Your task to perform on an android device: Search for "duracell triple a" on target.com, select the first entry, and add it to the cart. Image 0: 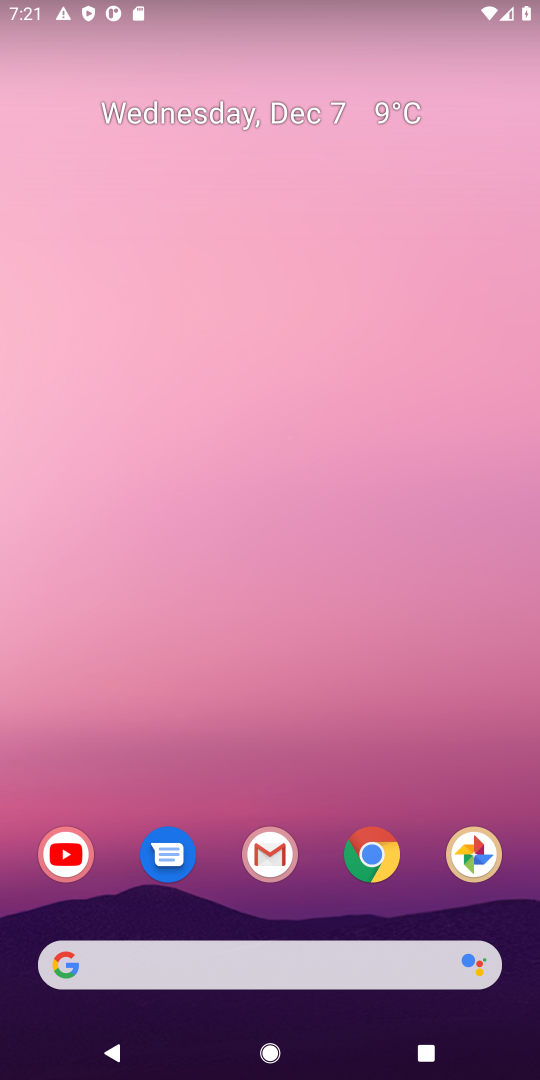
Step 0: click (372, 969)
Your task to perform on an android device: Search for "duracell triple a" on target.com, select the first entry, and add it to the cart. Image 1: 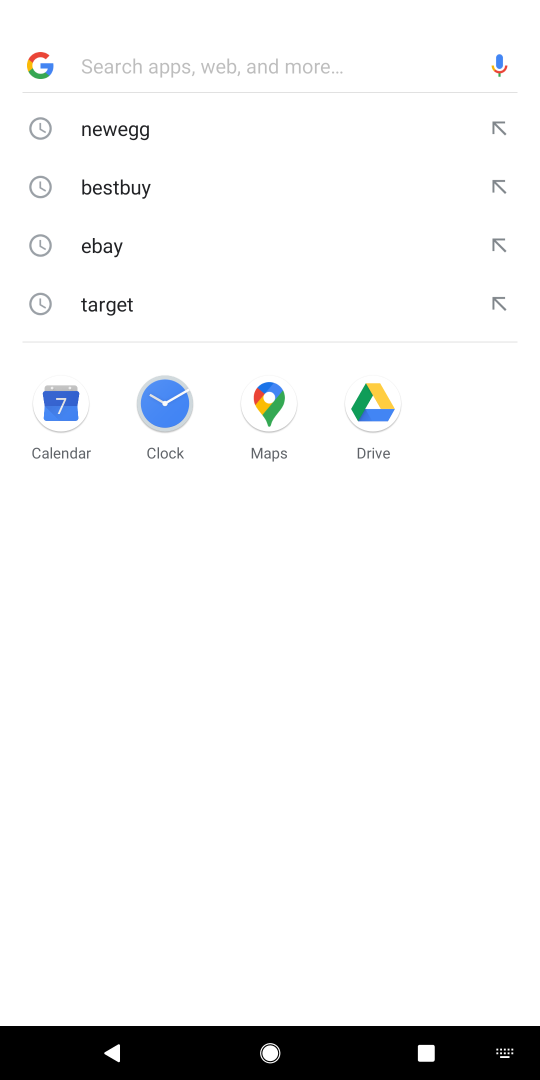
Step 1: type "target"
Your task to perform on an android device: Search for "duracell triple a" on target.com, select the first entry, and add it to the cart. Image 2: 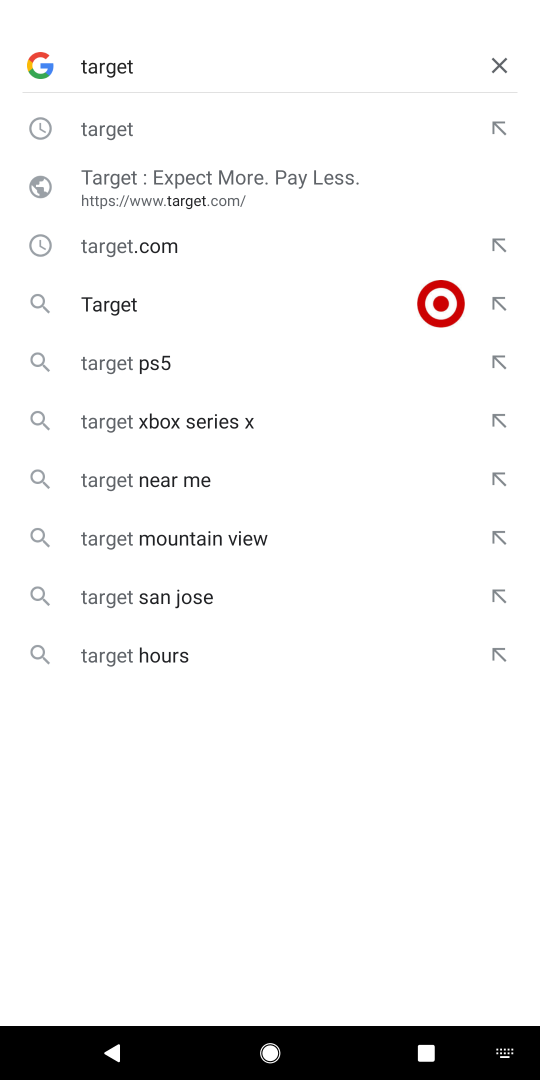
Step 2: click (118, 307)
Your task to perform on an android device: Search for "duracell triple a" on target.com, select the first entry, and add it to the cart. Image 3: 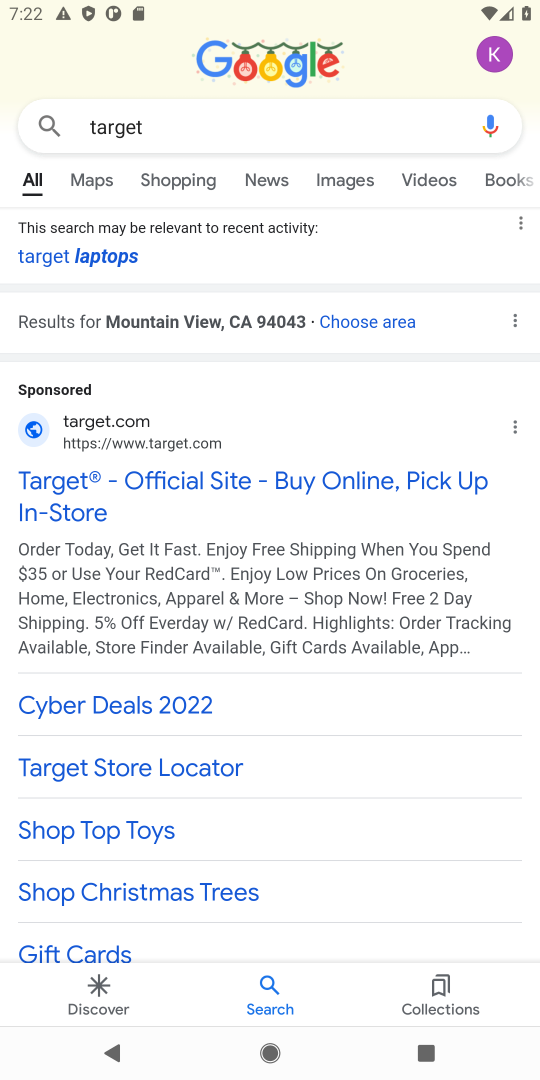
Step 3: click (169, 484)
Your task to perform on an android device: Search for "duracell triple a" on target.com, select the first entry, and add it to the cart. Image 4: 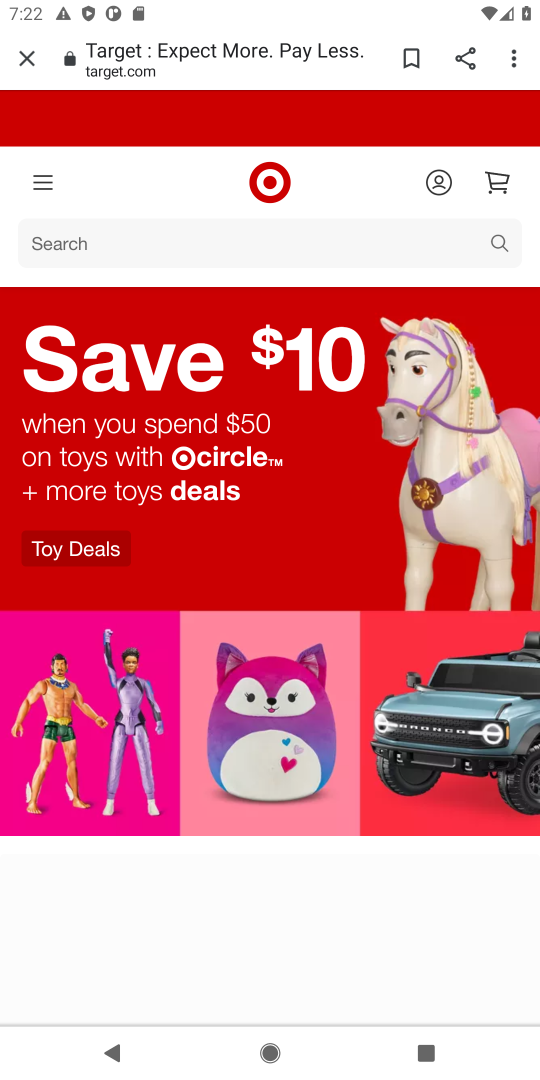
Step 4: click (189, 232)
Your task to perform on an android device: Search for "duracell triple a" on target.com, select the first entry, and add it to the cart. Image 5: 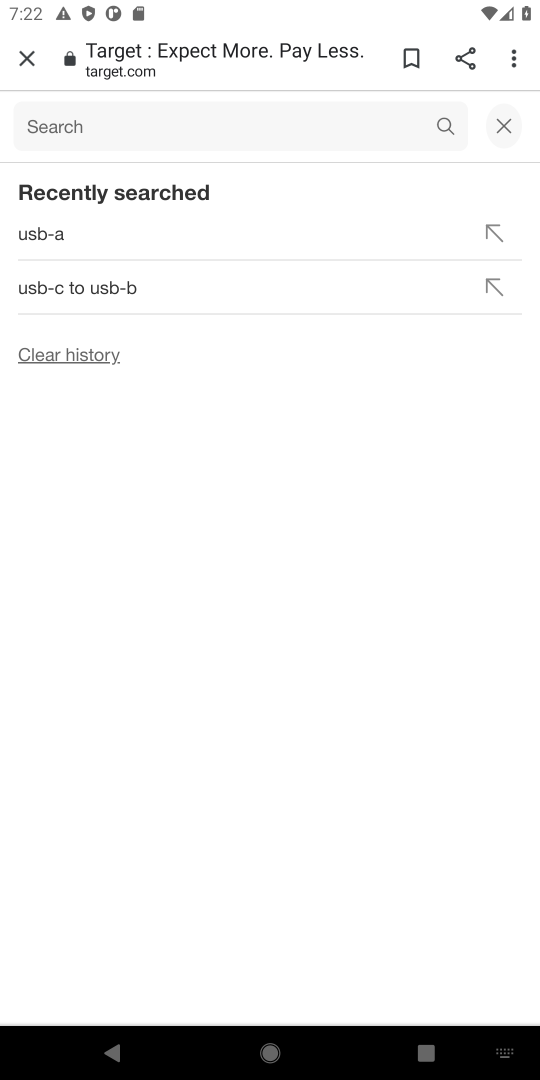
Step 5: type "duracell triple a"
Your task to perform on an android device: Search for "duracell triple a" on target.com, select the first entry, and add it to the cart. Image 6: 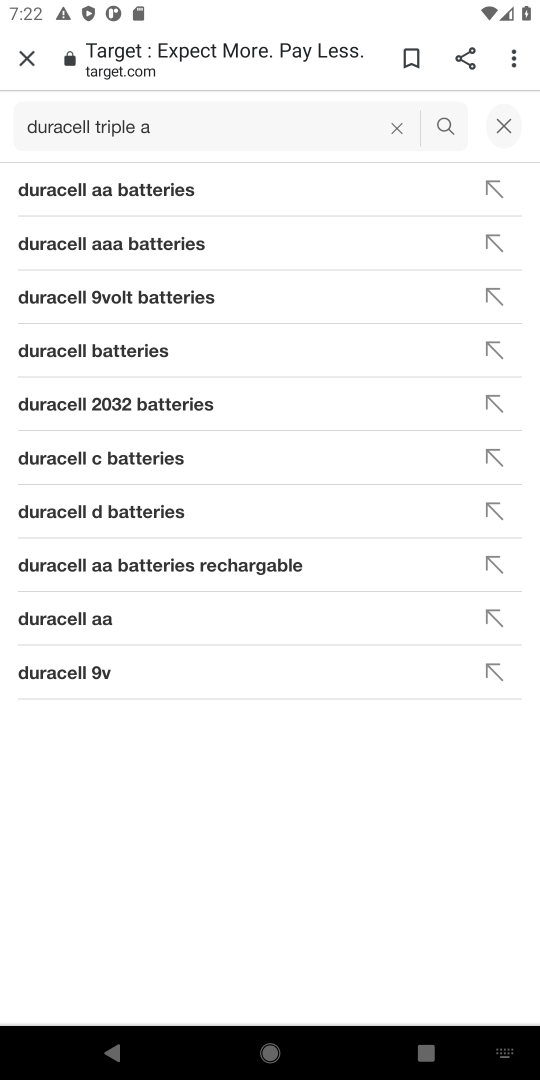
Step 6: click (378, 191)
Your task to perform on an android device: Search for "duracell triple a" on target.com, select the first entry, and add it to the cart. Image 7: 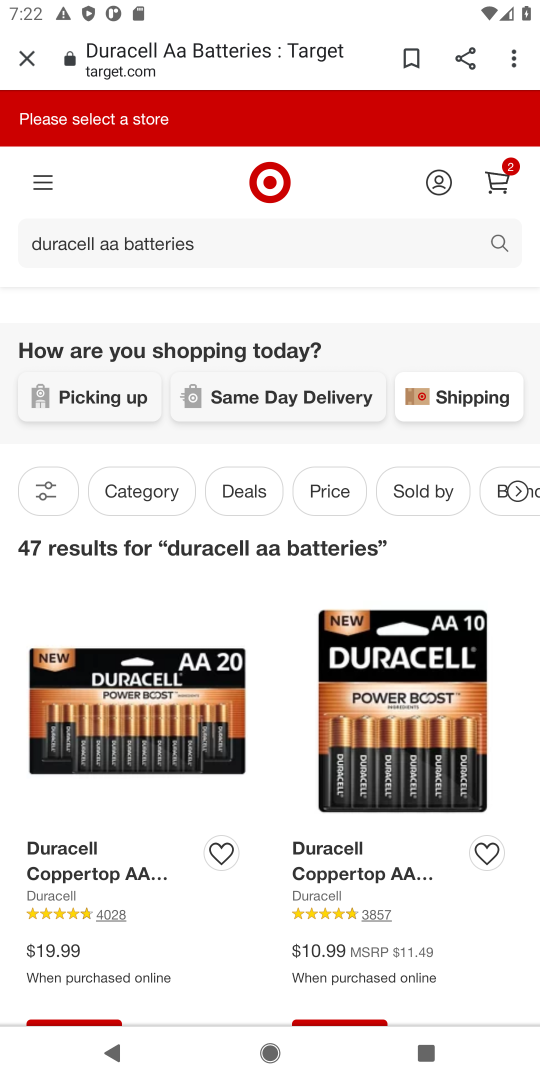
Step 7: click (120, 764)
Your task to perform on an android device: Search for "duracell triple a" on target.com, select the first entry, and add it to the cart. Image 8: 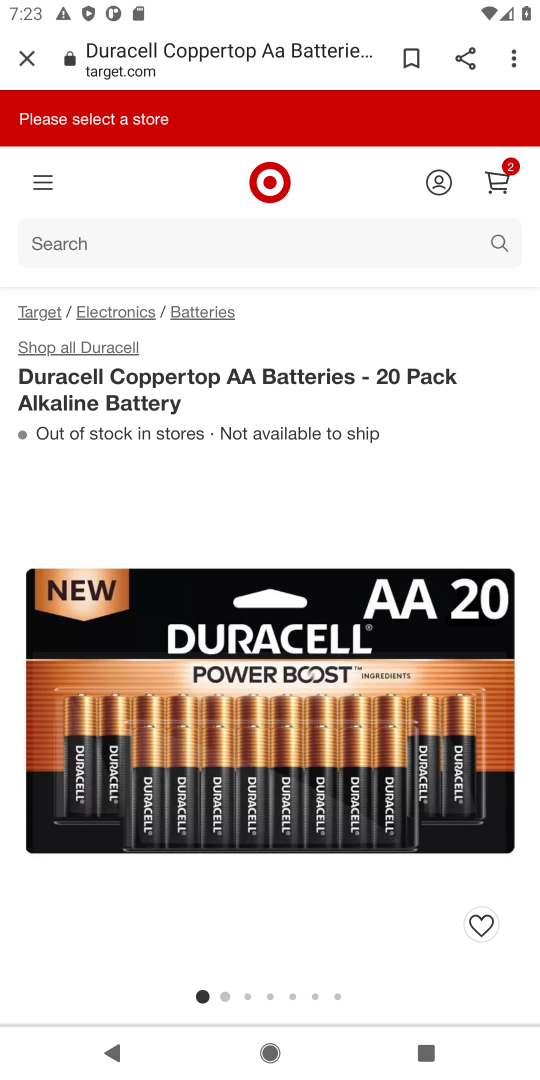
Step 8: drag from (120, 764) to (106, 280)
Your task to perform on an android device: Search for "duracell triple a" on target.com, select the first entry, and add it to the cart. Image 9: 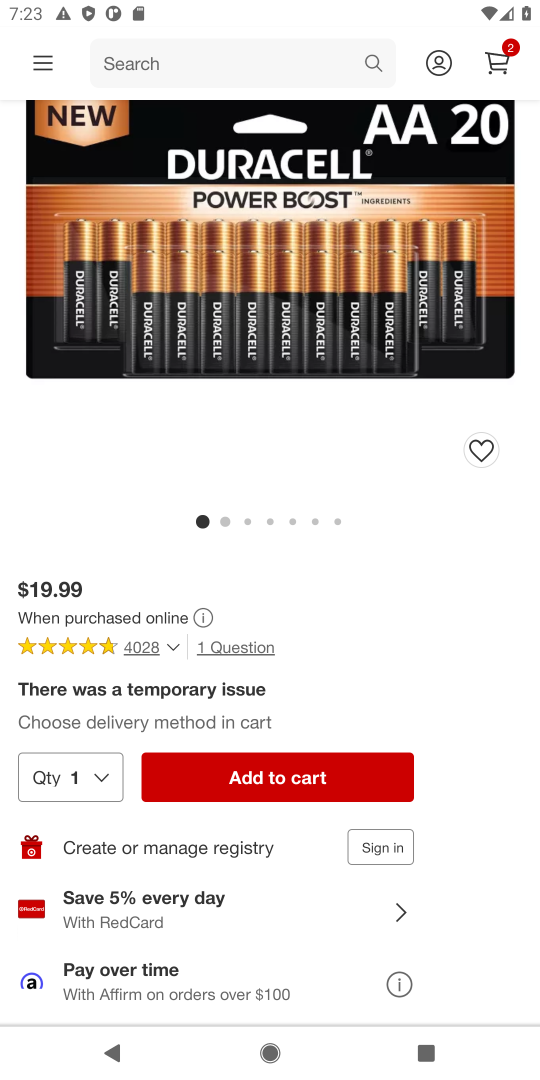
Step 9: click (322, 790)
Your task to perform on an android device: Search for "duracell triple a" on target.com, select the first entry, and add it to the cart. Image 10: 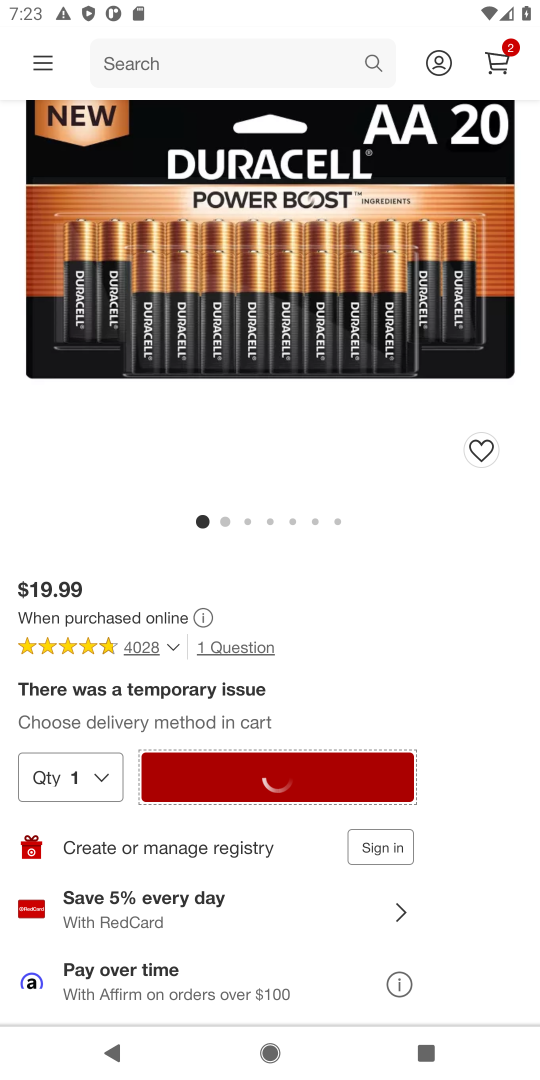
Step 10: task complete